Your task to perform on an android device: open chrome privacy settings Image 0: 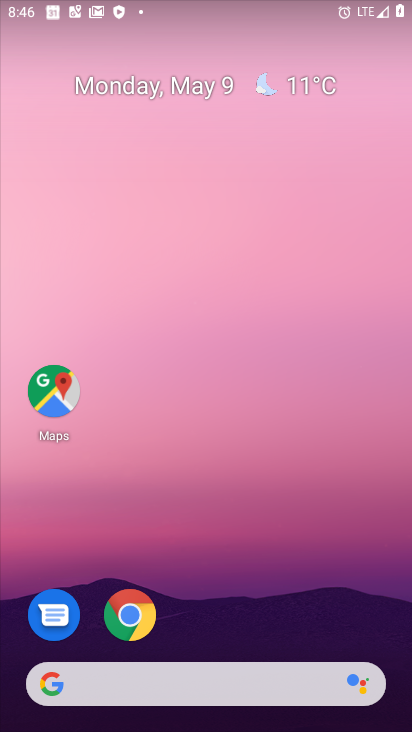
Step 0: click (127, 616)
Your task to perform on an android device: open chrome privacy settings Image 1: 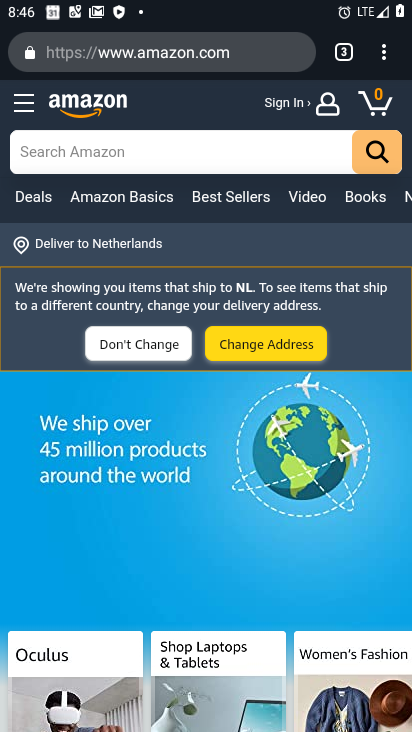
Step 1: click (374, 53)
Your task to perform on an android device: open chrome privacy settings Image 2: 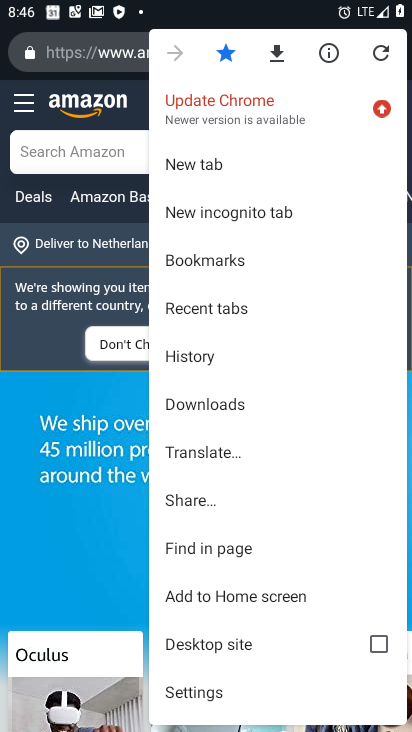
Step 2: click (220, 682)
Your task to perform on an android device: open chrome privacy settings Image 3: 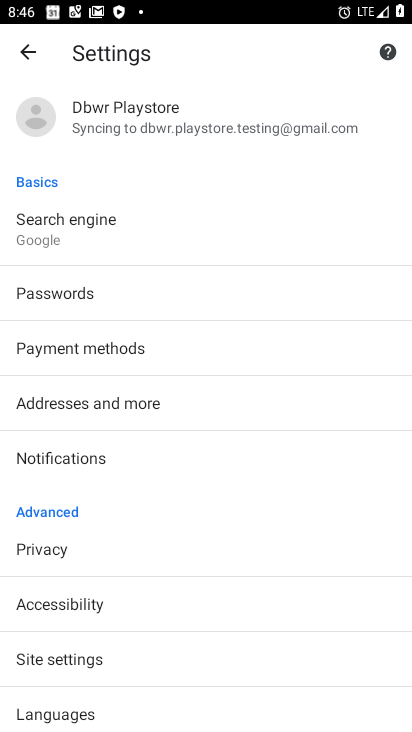
Step 3: click (99, 537)
Your task to perform on an android device: open chrome privacy settings Image 4: 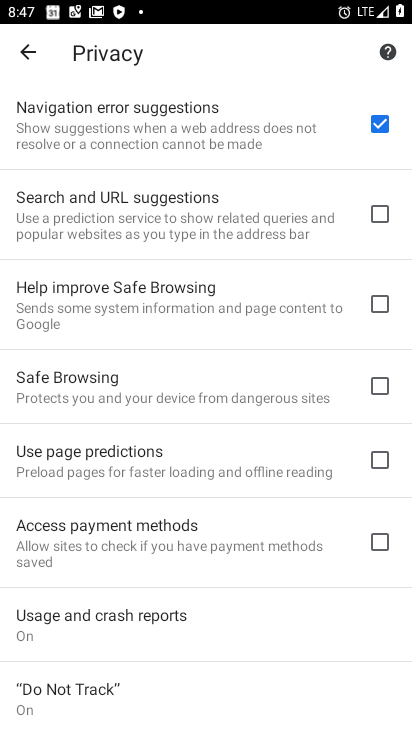
Step 4: task complete